Your task to perform on an android device: Go to internet settings Image 0: 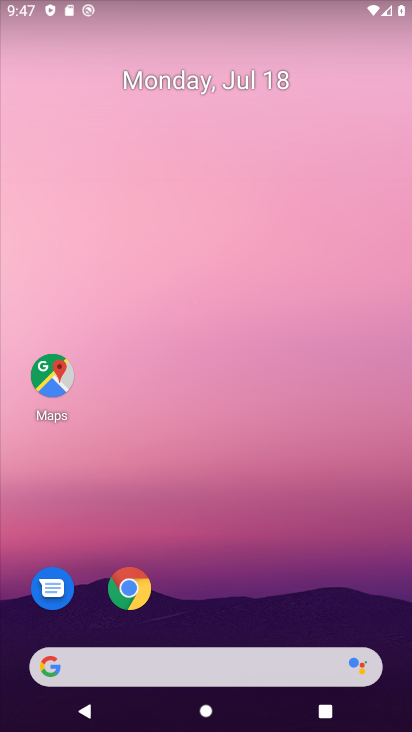
Step 0: drag from (246, 715) to (232, 161)
Your task to perform on an android device: Go to internet settings Image 1: 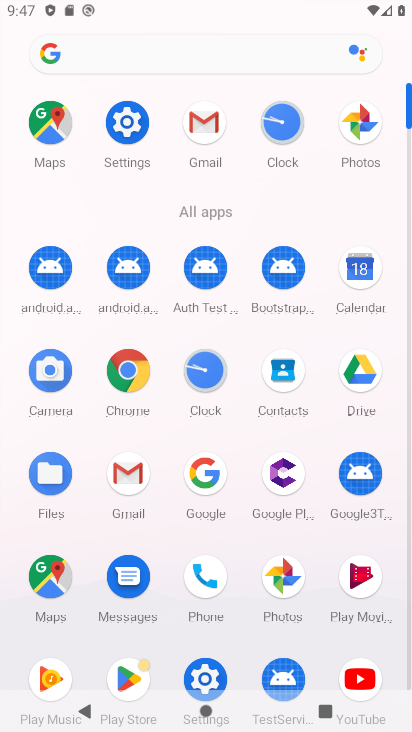
Step 1: click (125, 119)
Your task to perform on an android device: Go to internet settings Image 2: 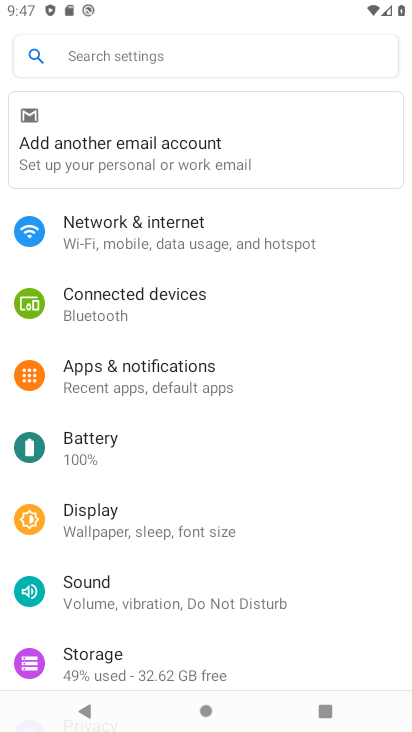
Step 2: click (136, 238)
Your task to perform on an android device: Go to internet settings Image 3: 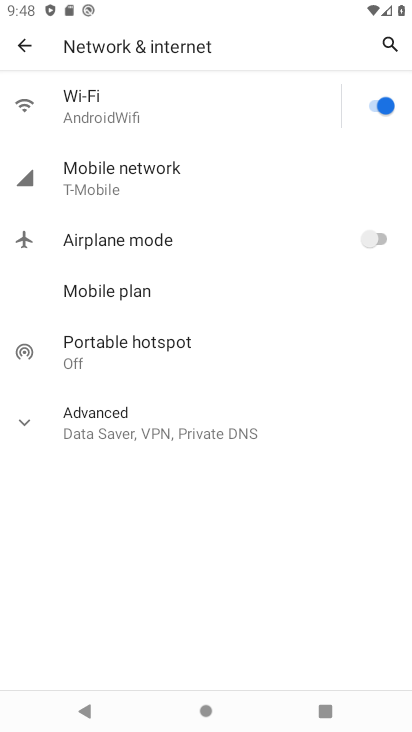
Step 3: task complete